Your task to perform on an android device: check the backup settings in the google photos Image 0: 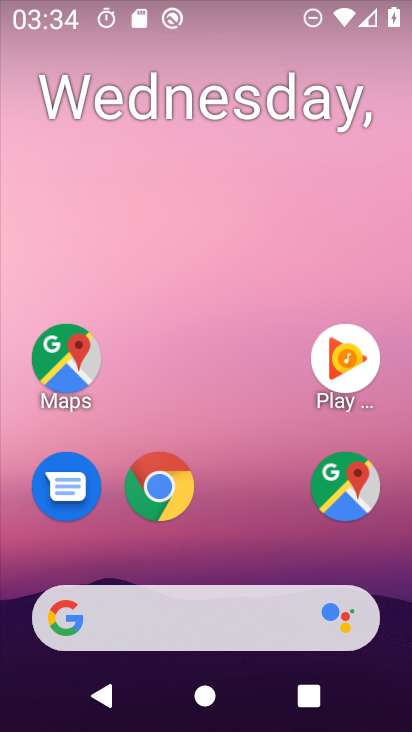
Step 0: press home button
Your task to perform on an android device: check the backup settings in the google photos Image 1: 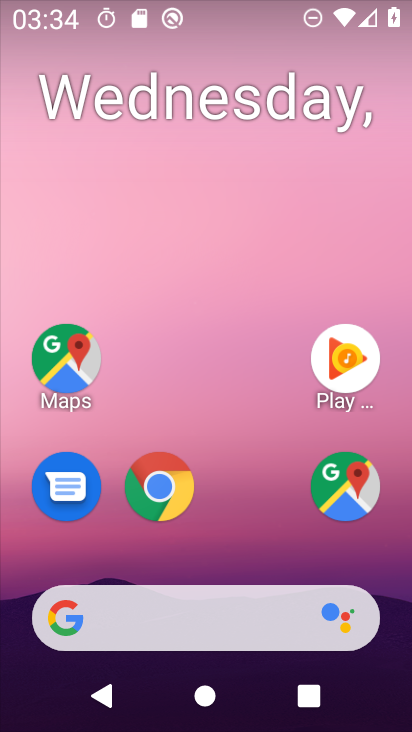
Step 1: drag from (277, 549) to (281, 187)
Your task to perform on an android device: check the backup settings in the google photos Image 2: 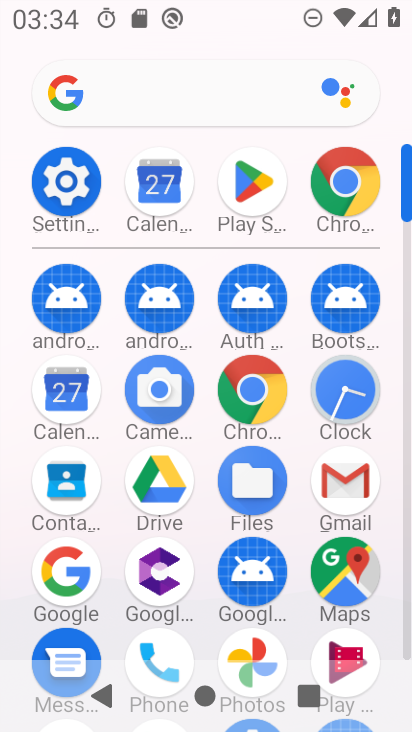
Step 2: drag from (383, 443) to (400, 252)
Your task to perform on an android device: check the backup settings in the google photos Image 3: 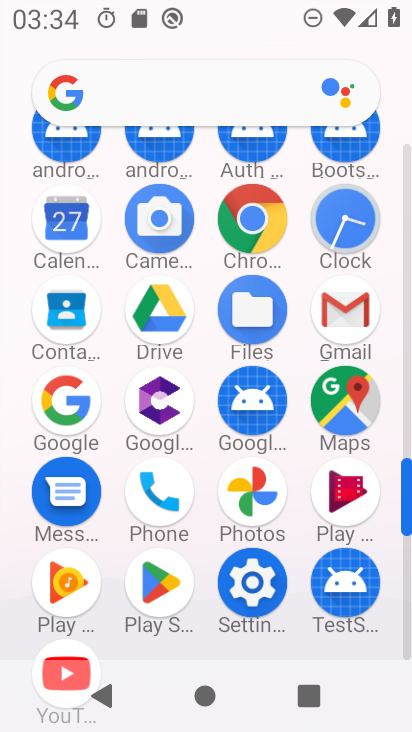
Step 3: click (258, 491)
Your task to perform on an android device: check the backup settings in the google photos Image 4: 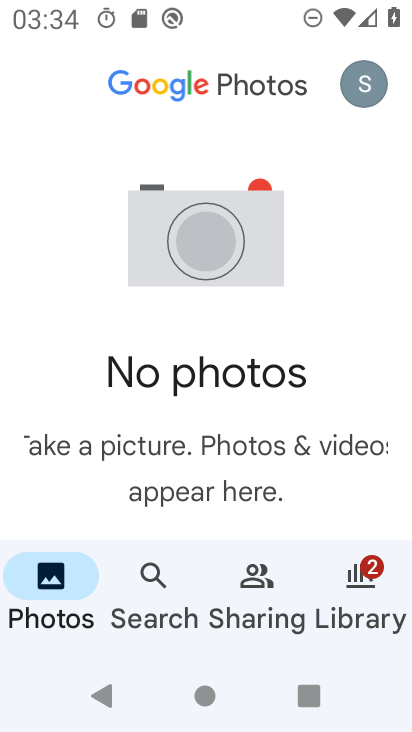
Step 4: click (361, 85)
Your task to perform on an android device: check the backup settings in the google photos Image 5: 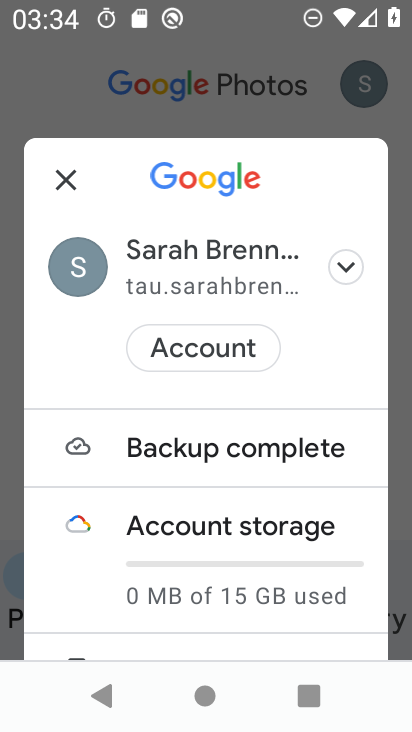
Step 5: drag from (288, 455) to (296, 387)
Your task to perform on an android device: check the backup settings in the google photos Image 6: 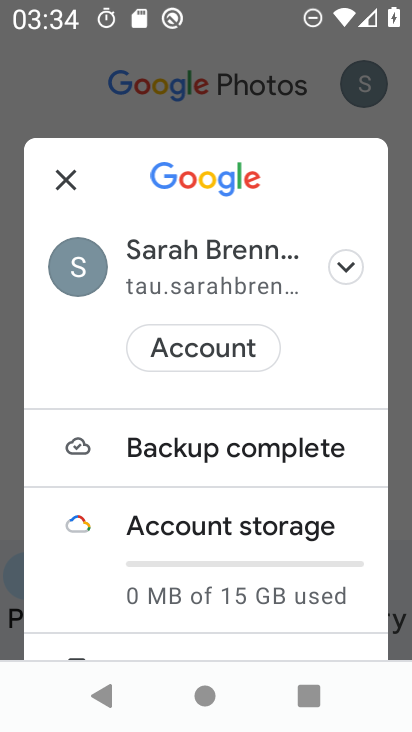
Step 6: drag from (296, 565) to (292, 290)
Your task to perform on an android device: check the backup settings in the google photos Image 7: 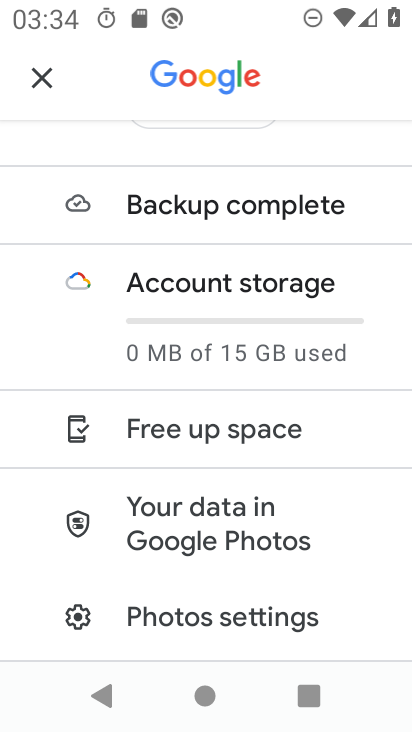
Step 7: drag from (334, 548) to (343, 339)
Your task to perform on an android device: check the backup settings in the google photos Image 8: 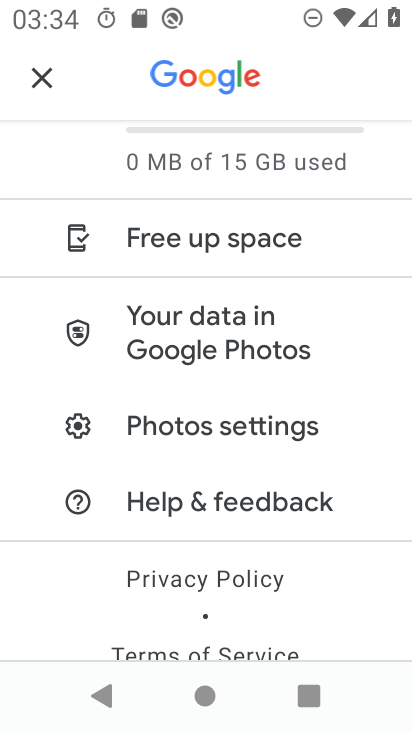
Step 8: click (311, 422)
Your task to perform on an android device: check the backup settings in the google photos Image 9: 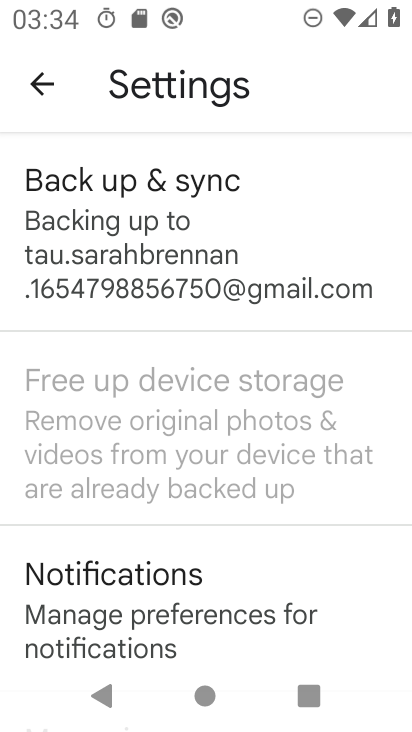
Step 9: click (268, 280)
Your task to perform on an android device: check the backup settings in the google photos Image 10: 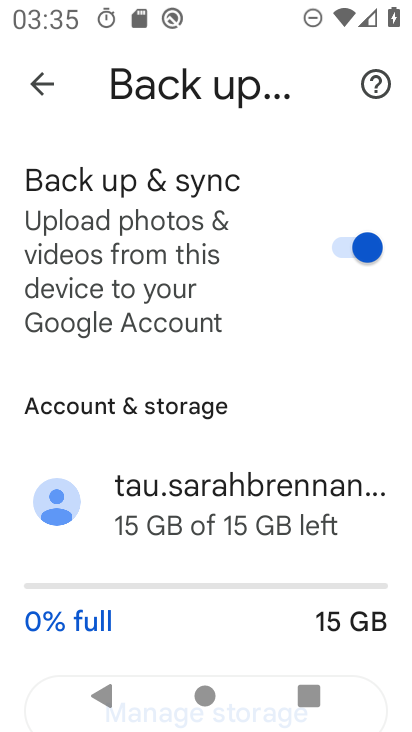
Step 10: task complete